Your task to perform on an android device: find photos in the google photos app Image 0: 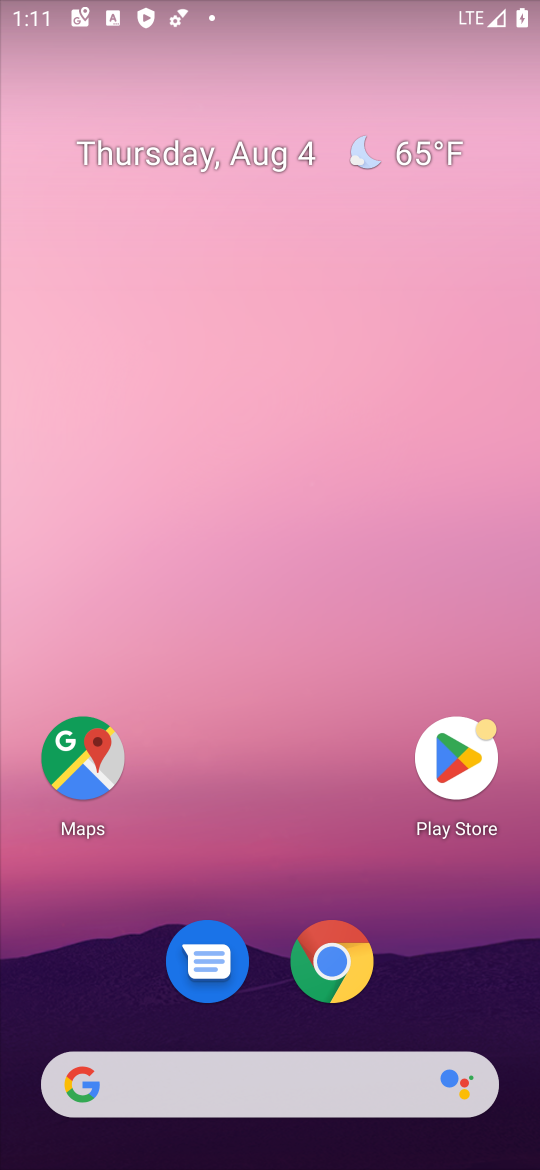
Step 0: drag from (280, 590) to (322, 0)
Your task to perform on an android device: find photos in the google photos app Image 1: 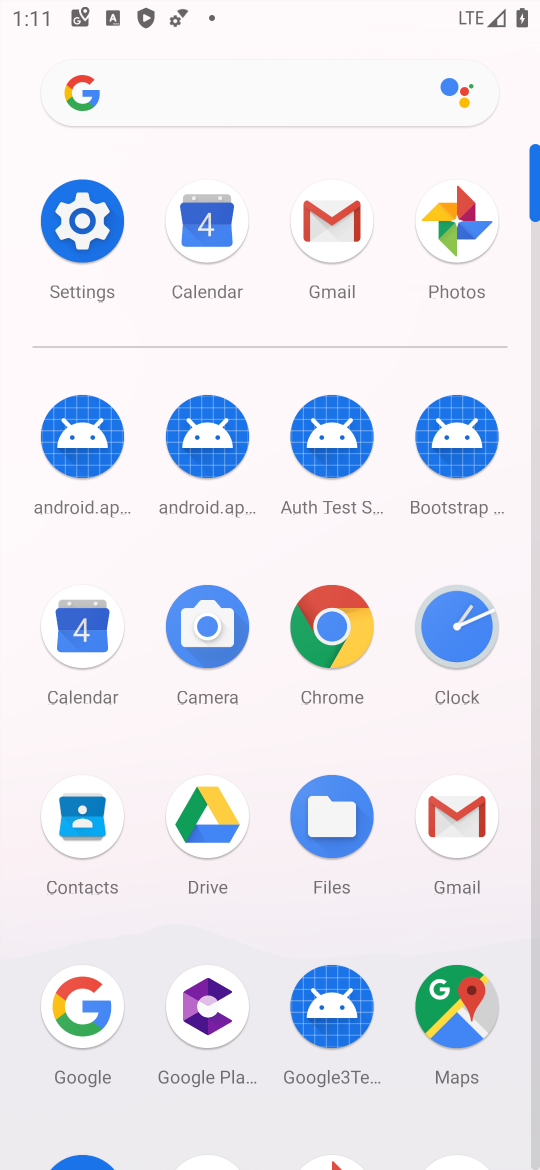
Step 1: click (457, 218)
Your task to perform on an android device: find photos in the google photos app Image 2: 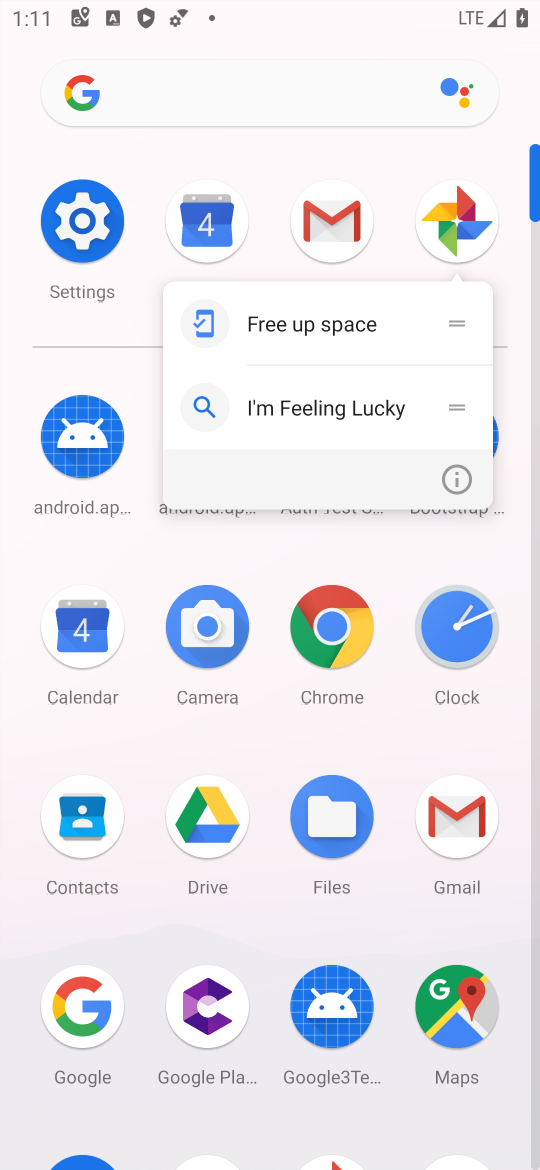
Step 2: click (457, 218)
Your task to perform on an android device: find photos in the google photos app Image 3: 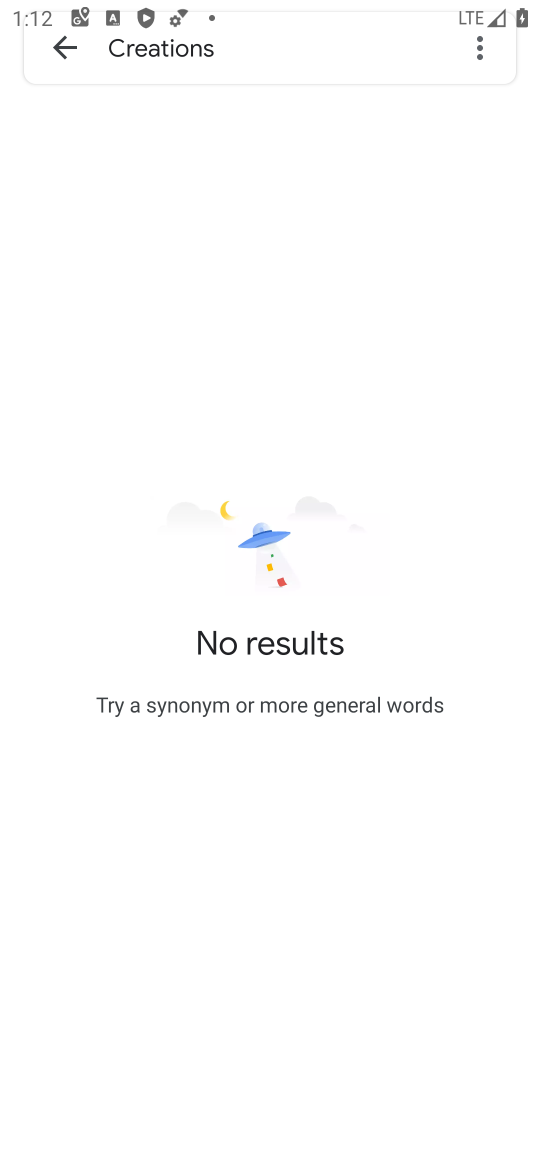
Step 3: task complete